Your task to perform on an android device: turn notification dots off Image 0: 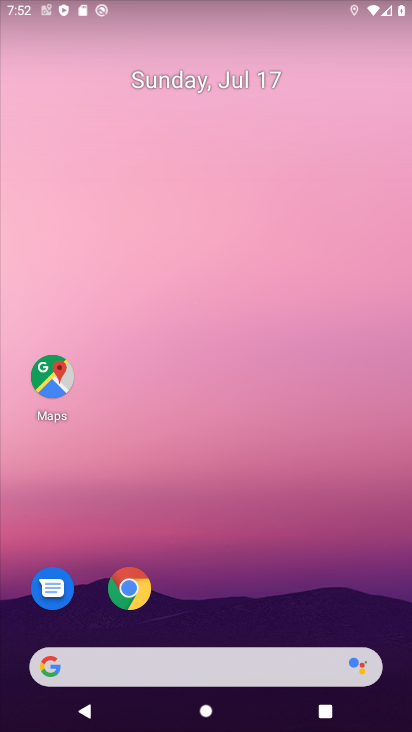
Step 0: drag from (239, 652) to (251, 121)
Your task to perform on an android device: turn notification dots off Image 1: 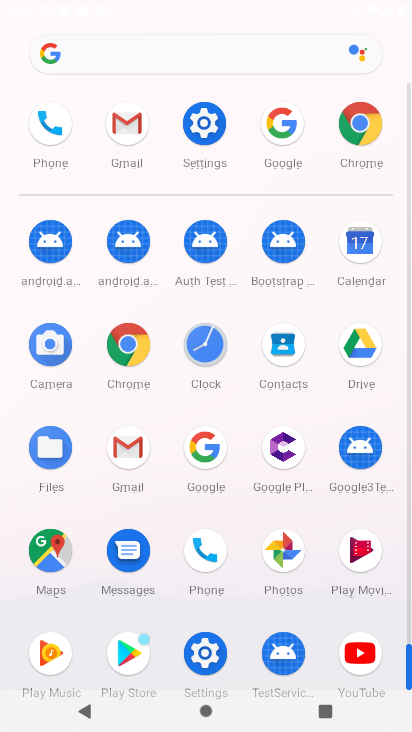
Step 1: click (207, 155)
Your task to perform on an android device: turn notification dots off Image 2: 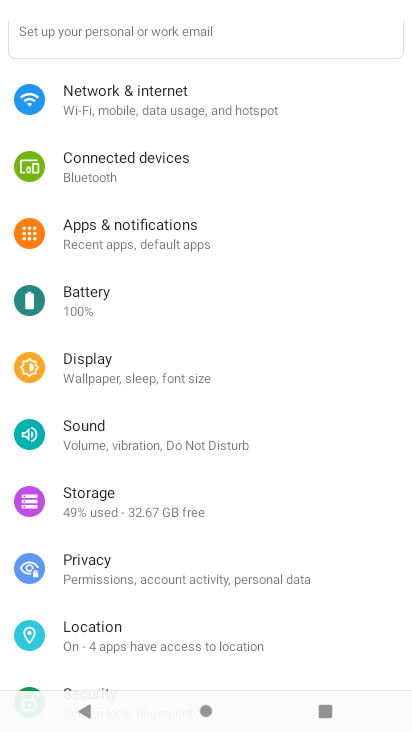
Step 2: click (217, 235)
Your task to perform on an android device: turn notification dots off Image 3: 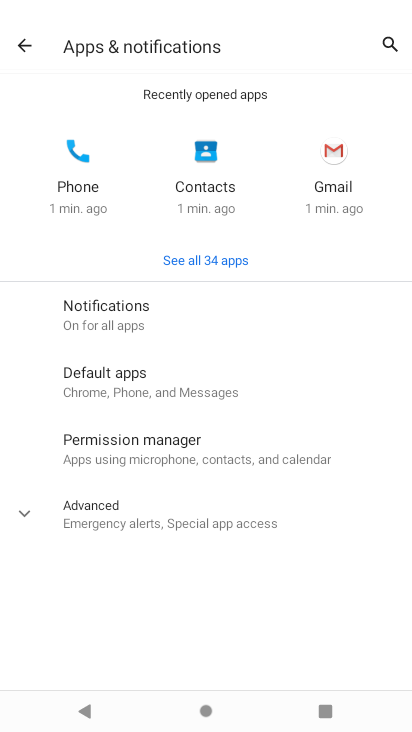
Step 3: drag from (239, 726) to (340, 730)
Your task to perform on an android device: turn notification dots off Image 4: 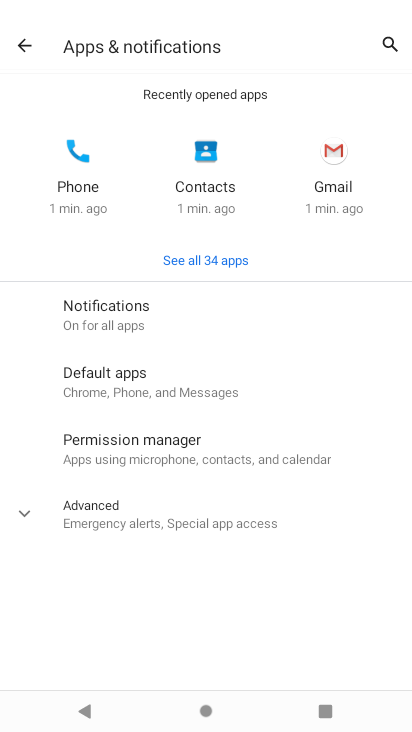
Step 4: click (178, 317)
Your task to perform on an android device: turn notification dots off Image 5: 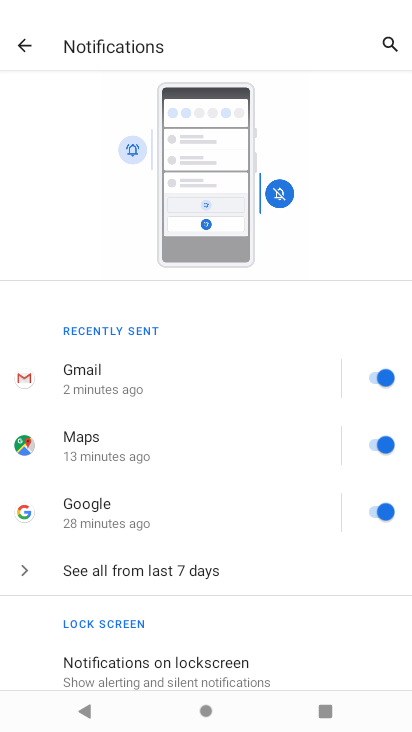
Step 5: drag from (140, 548) to (139, 217)
Your task to perform on an android device: turn notification dots off Image 6: 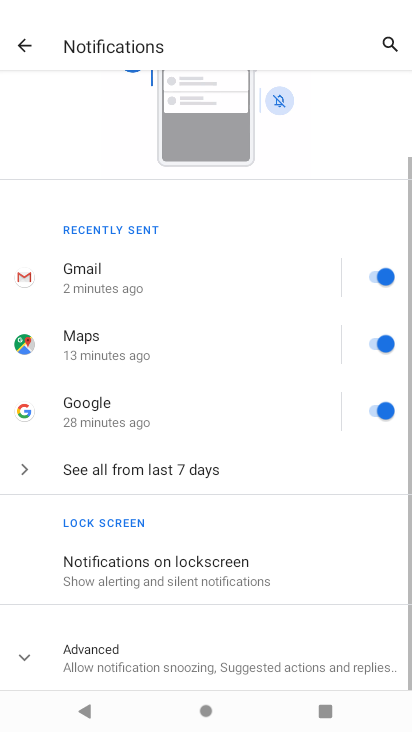
Step 6: drag from (140, 588) to (162, 383)
Your task to perform on an android device: turn notification dots off Image 7: 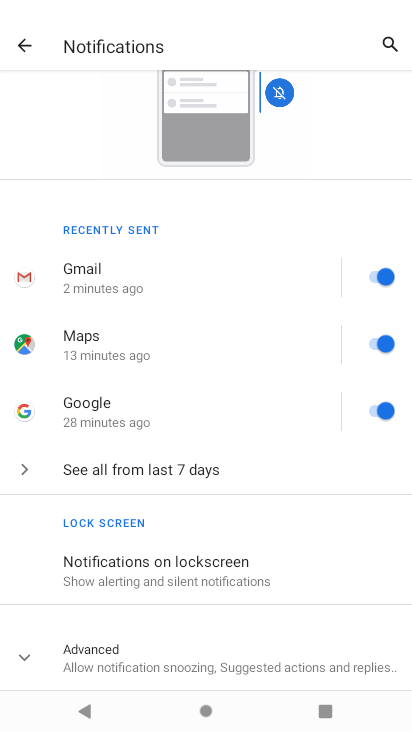
Step 7: click (156, 647)
Your task to perform on an android device: turn notification dots off Image 8: 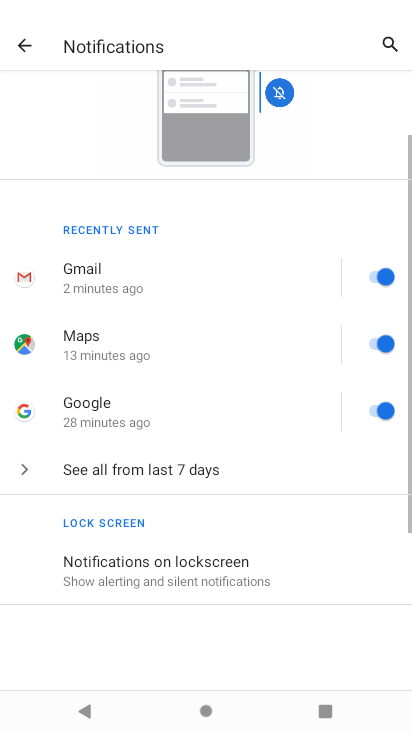
Step 8: drag from (144, 559) to (188, 254)
Your task to perform on an android device: turn notification dots off Image 9: 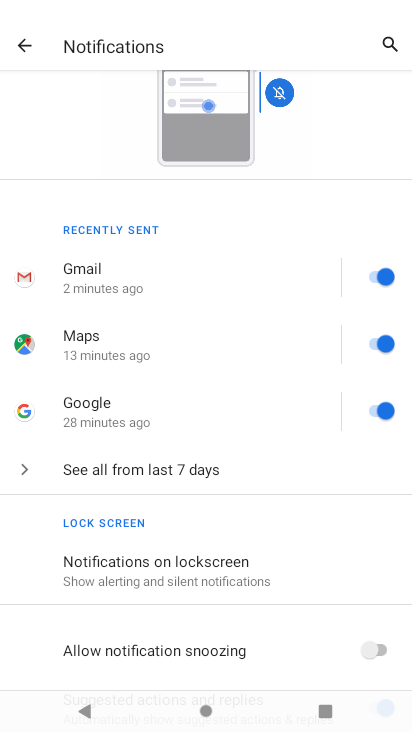
Step 9: drag from (187, 589) to (191, 328)
Your task to perform on an android device: turn notification dots off Image 10: 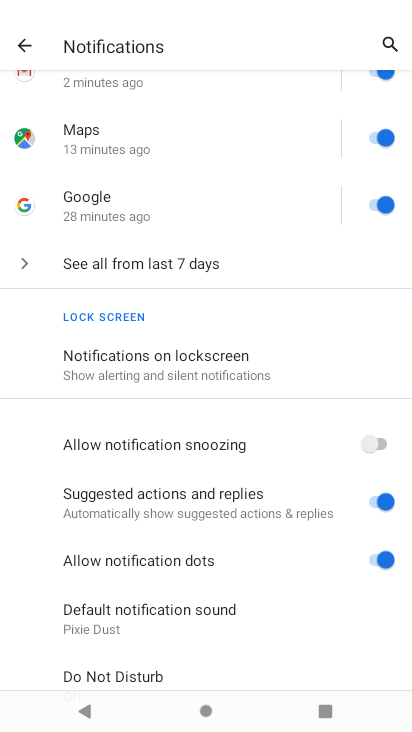
Step 10: click (360, 567)
Your task to perform on an android device: turn notification dots off Image 11: 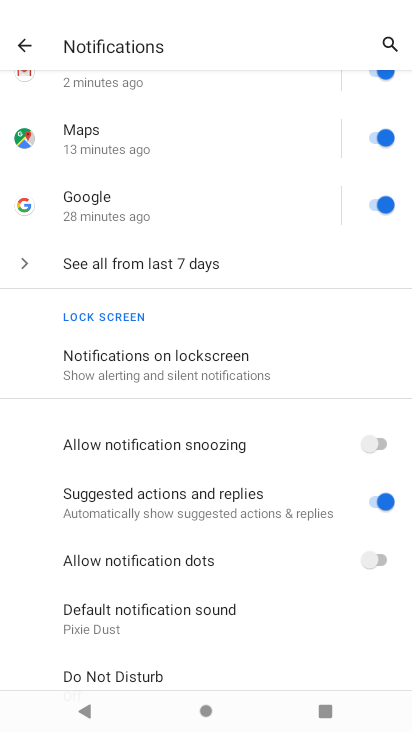
Step 11: task complete